Your task to perform on an android device: open app "Nova Launcher" (install if not already installed), go to login, and select forgot password Image 0: 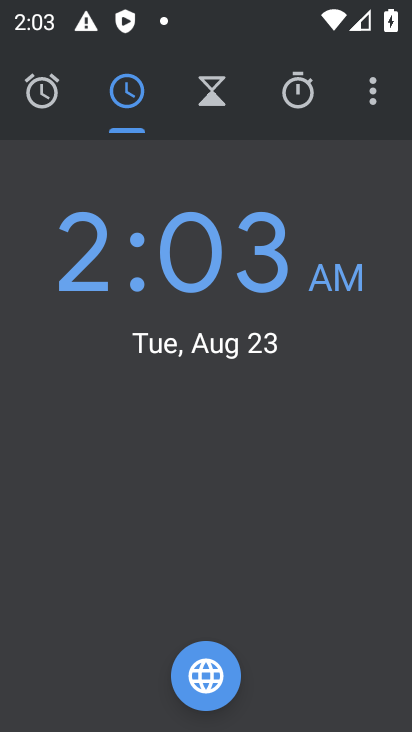
Step 0: press home button
Your task to perform on an android device: open app "Nova Launcher" (install if not already installed), go to login, and select forgot password Image 1: 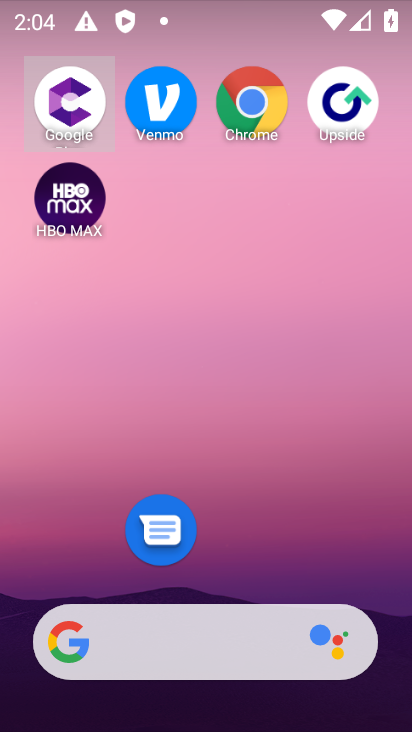
Step 1: drag from (165, 624) to (29, 21)
Your task to perform on an android device: open app "Nova Launcher" (install if not already installed), go to login, and select forgot password Image 2: 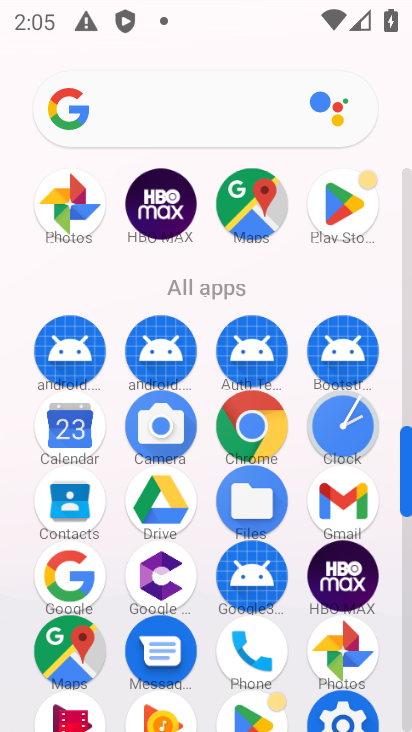
Step 2: click (341, 217)
Your task to perform on an android device: open app "Nova Launcher" (install if not already installed), go to login, and select forgot password Image 3: 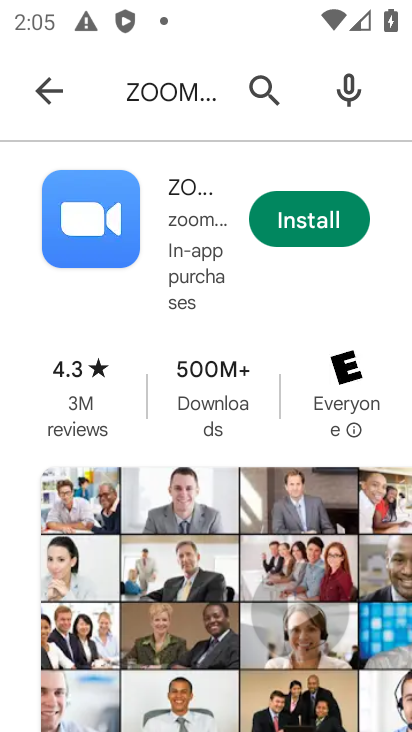
Step 3: press back button
Your task to perform on an android device: open app "Nova Launcher" (install if not already installed), go to login, and select forgot password Image 4: 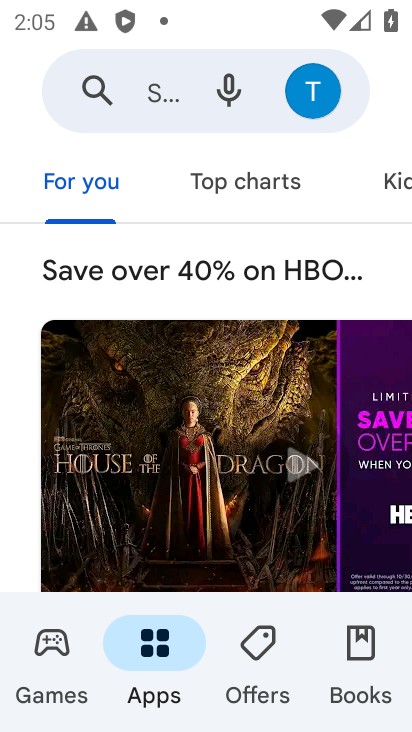
Step 4: click (174, 91)
Your task to perform on an android device: open app "Nova Launcher" (install if not already installed), go to login, and select forgot password Image 5: 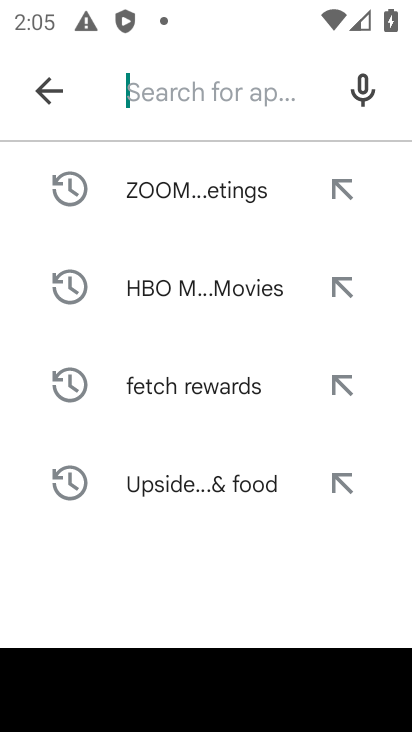
Step 5: type "Nova Launcher"
Your task to perform on an android device: open app "Nova Launcher" (install if not already installed), go to login, and select forgot password Image 6: 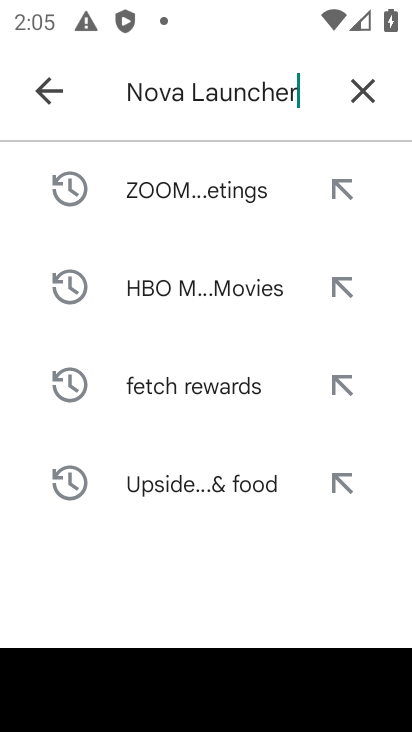
Step 6: press enter
Your task to perform on an android device: open app "Nova Launcher" (install if not already installed), go to login, and select forgot password Image 7: 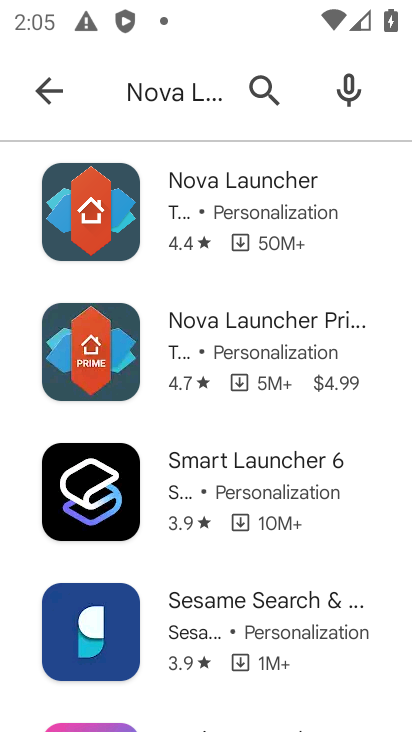
Step 7: click (180, 230)
Your task to perform on an android device: open app "Nova Launcher" (install if not already installed), go to login, and select forgot password Image 8: 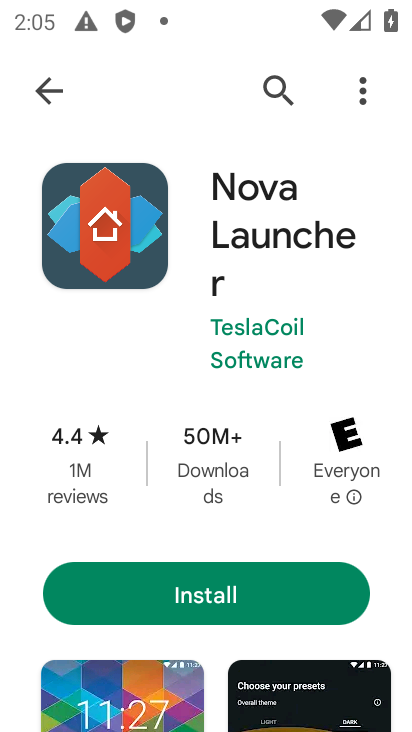
Step 8: click (236, 602)
Your task to perform on an android device: open app "Nova Launcher" (install if not already installed), go to login, and select forgot password Image 9: 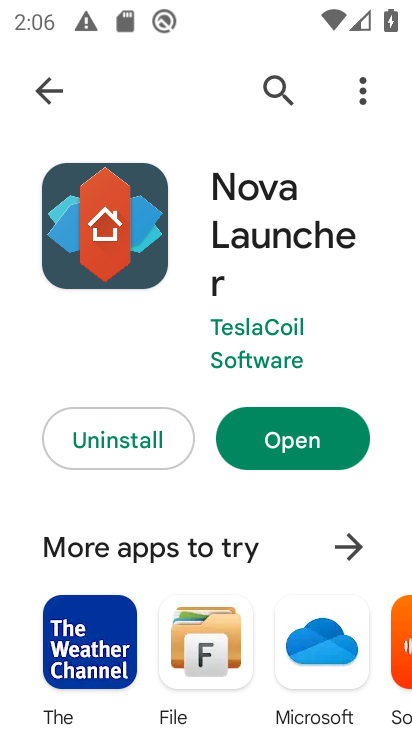
Step 9: click (276, 441)
Your task to perform on an android device: open app "Nova Launcher" (install if not already installed), go to login, and select forgot password Image 10: 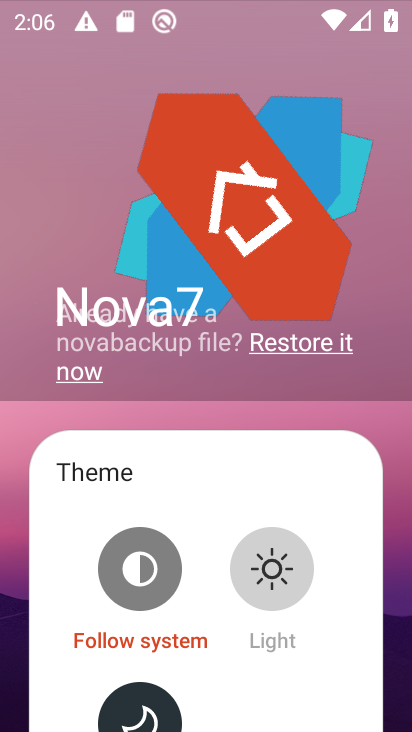
Step 10: task complete